Your task to perform on an android device: check storage Image 0: 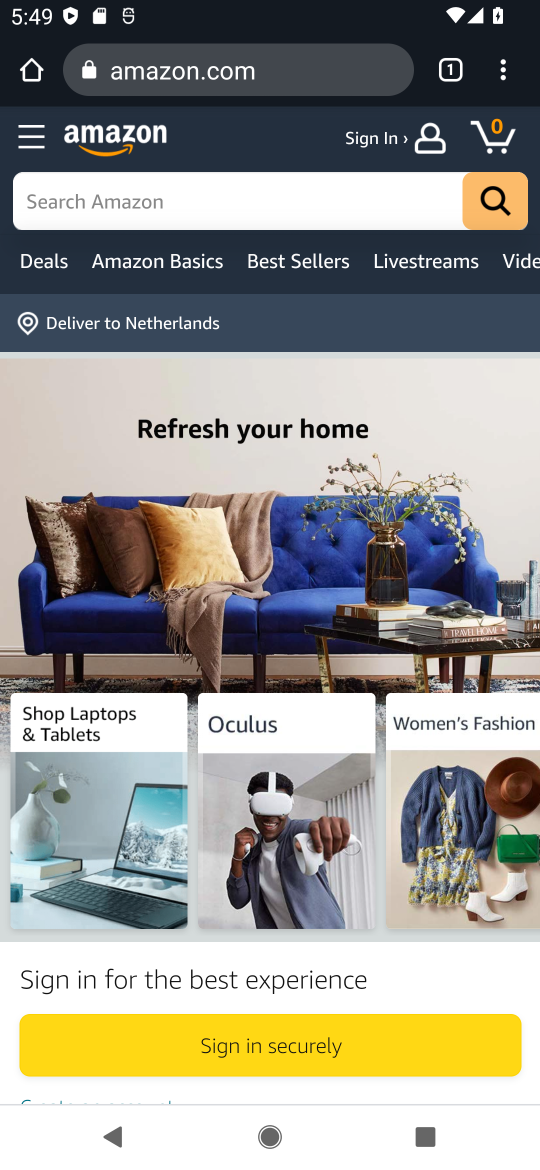
Step 0: press home button
Your task to perform on an android device: check storage Image 1: 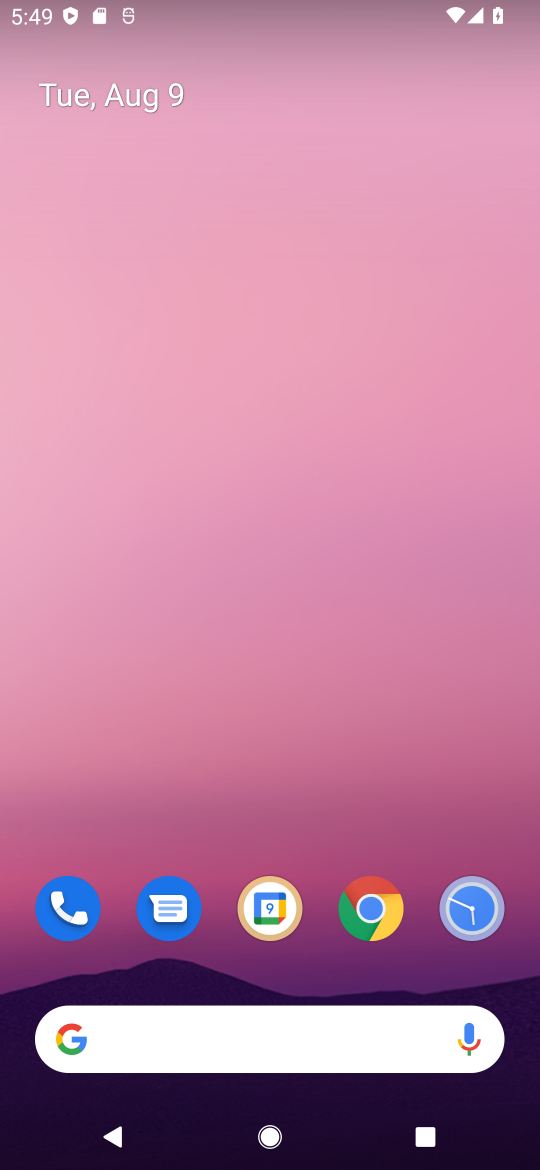
Step 1: drag from (301, 777) to (359, 0)
Your task to perform on an android device: check storage Image 2: 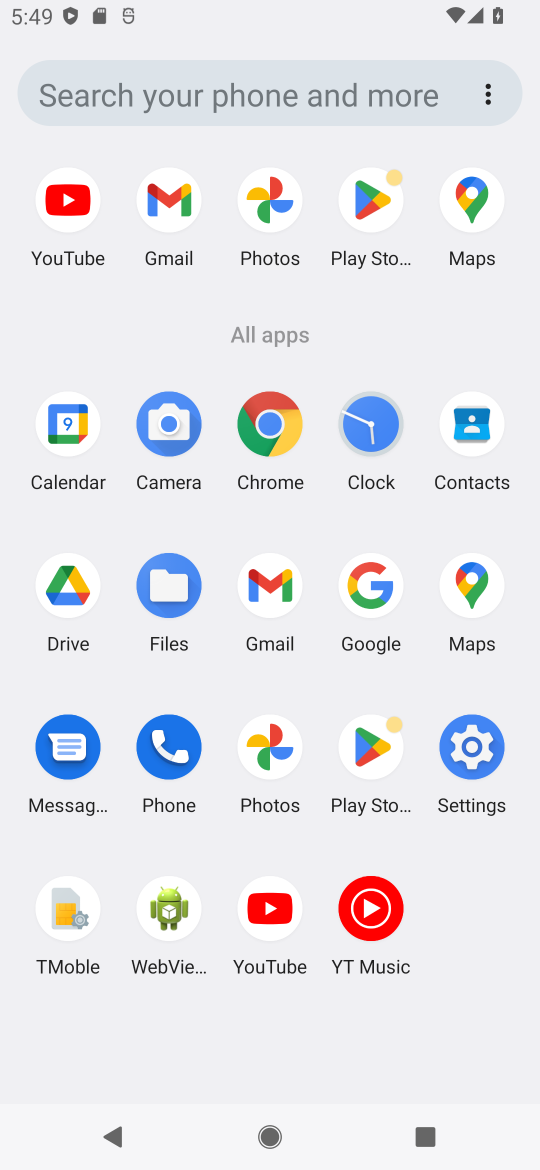
Step 2: click (468, 730)
Your task to perform on an android device: check storage Image 3: 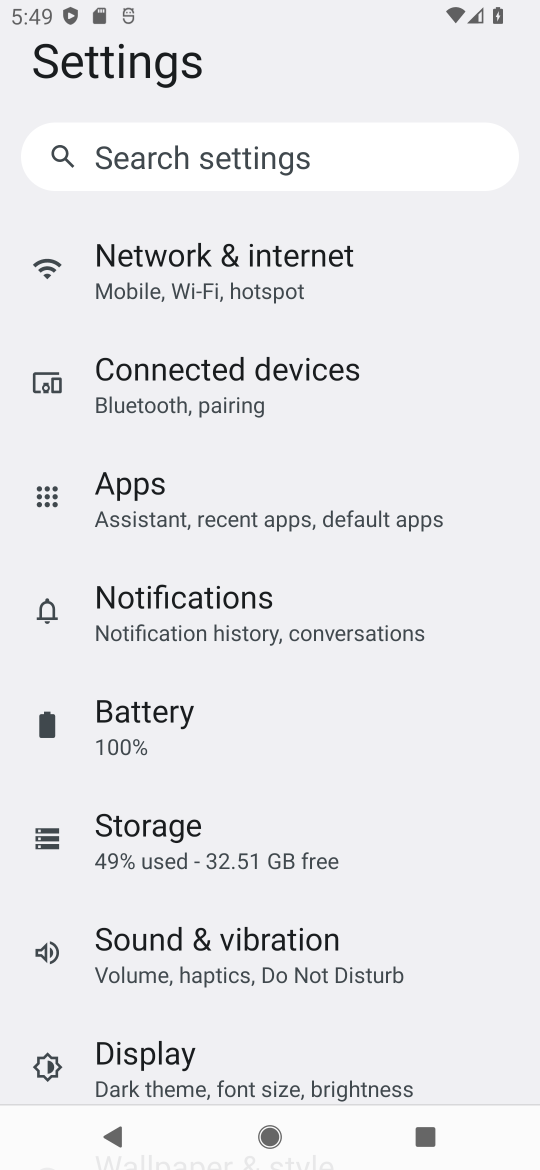
Step 3: click (297, 834)
Your task to perform on an android device: check storage Image 4: 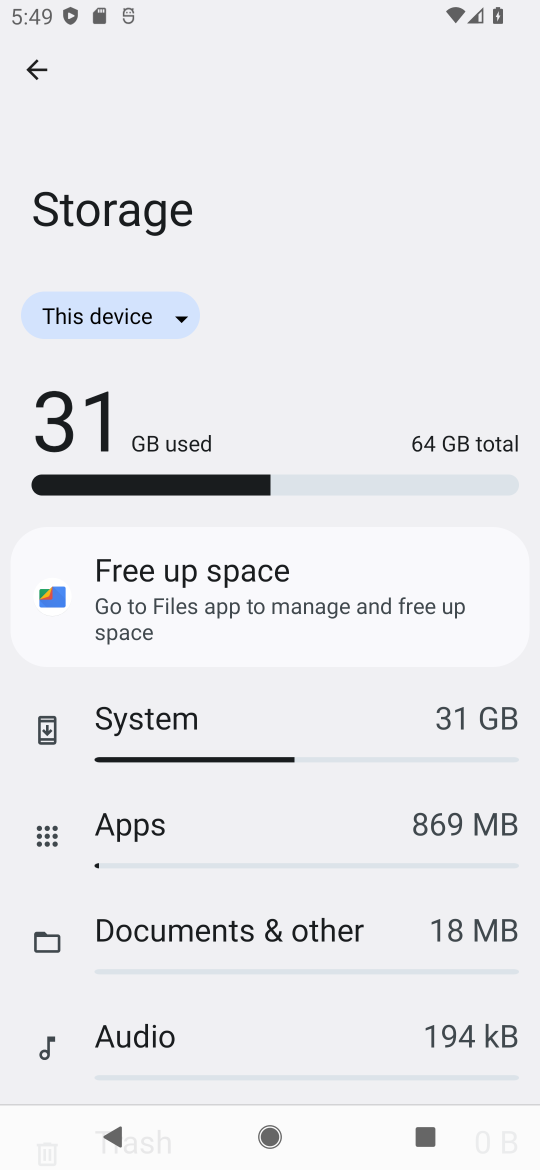
Step 4: task complete